Your task to perform on an android device: What's the weather going to be tomorrow? Image 0: 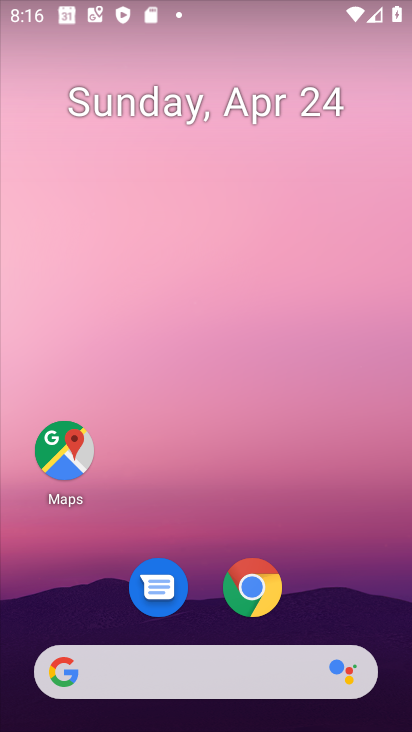
Step 0: drag from (360, 568) to (370, 161)
Your task to perform on an android device: What's the weather going to be tomorrow? Image 1: 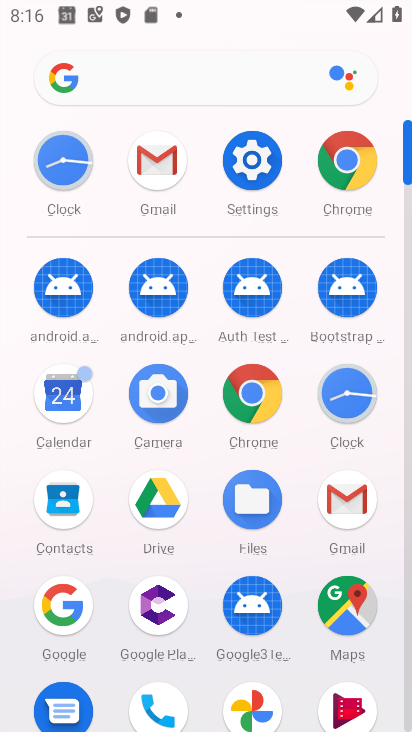
Step 1: click (251, 401)
Your task to perform on an android device: What's the weather going to be tomorrow? Image 2: 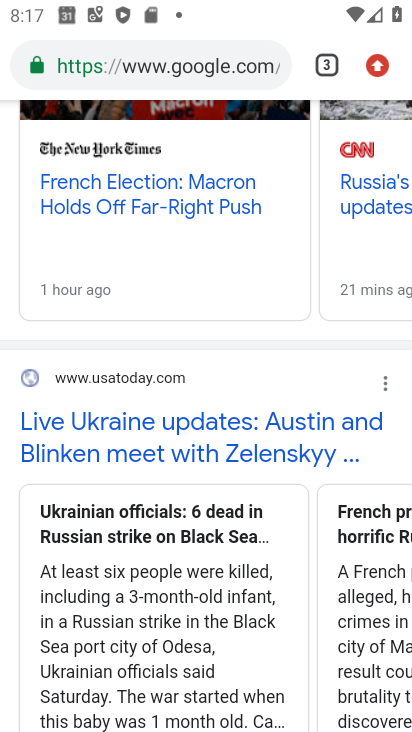
Step 2: click (162, 65)
Your task to perform on an android device: What's the weather going to be tomorrow? Image 3: 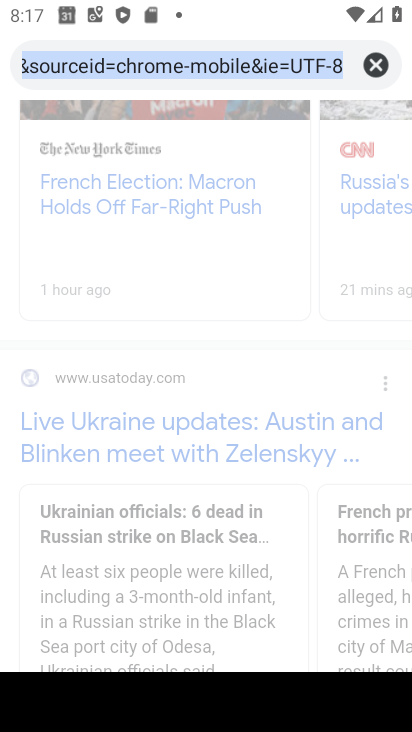
Step 3: click (381, 67)
Your task to perform on an android device: What's the weather going to be tomorrow? Image 4: 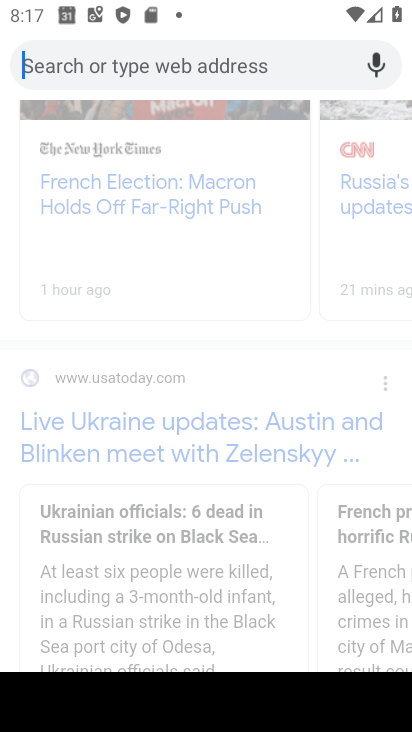
Step 4: type "what's the weather going to be tomorrow"
Your task to perform on an android device: What's the weather going to be tomorrow? Image 5: 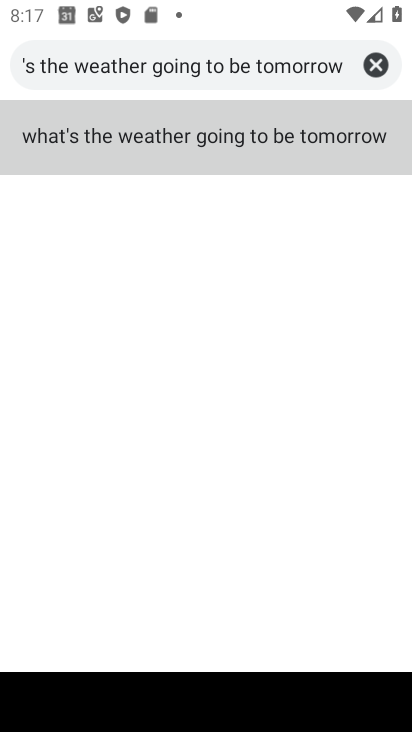
Step 5: click (157, 142)
Your task to perform on an android device: What's the weather going to be tomorrow? Image 6: 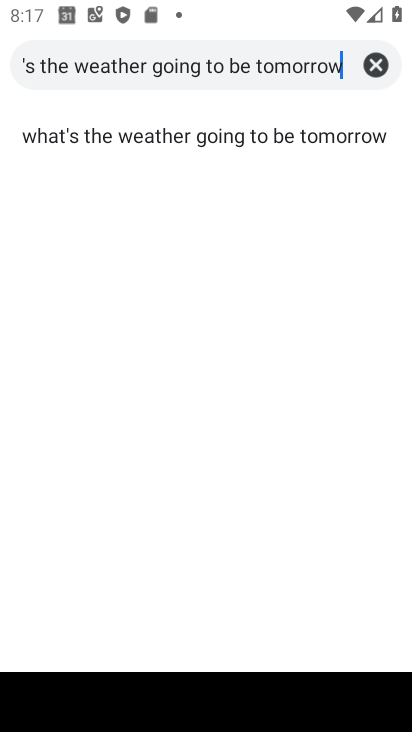
Step 6: click (153, 141)
Your task to perform on an android device: What's the weather going to be tomorrow? Image 7: 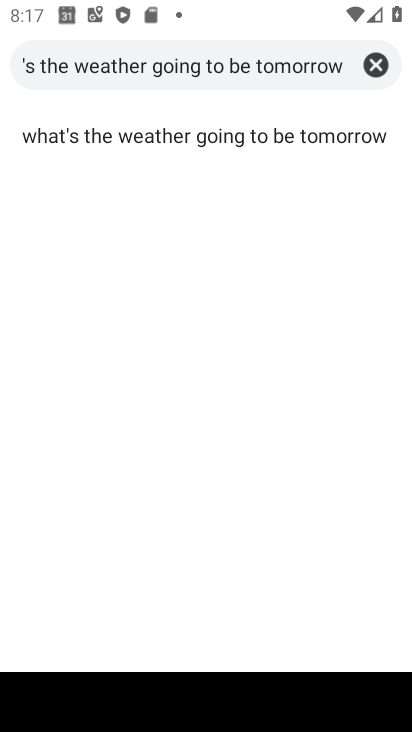
Step 7: click (140, 133)
Your task to perform on an android device: What's the weather going to be tomorrow? Image 8: 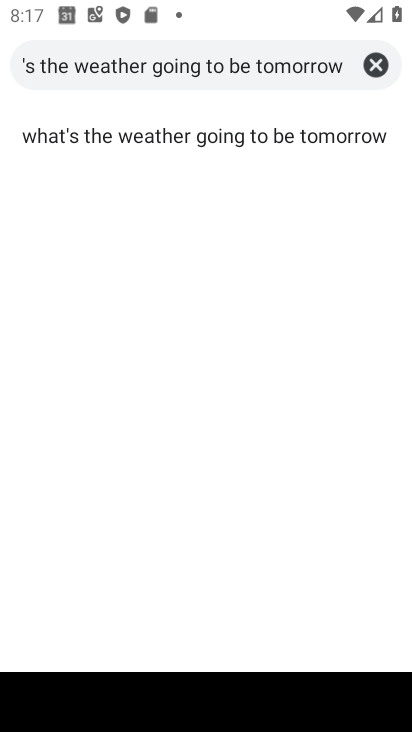
Step 8: click (142, 135)
Your task to perform on an android device: What's the weather going to be tomorrow? Image 9: 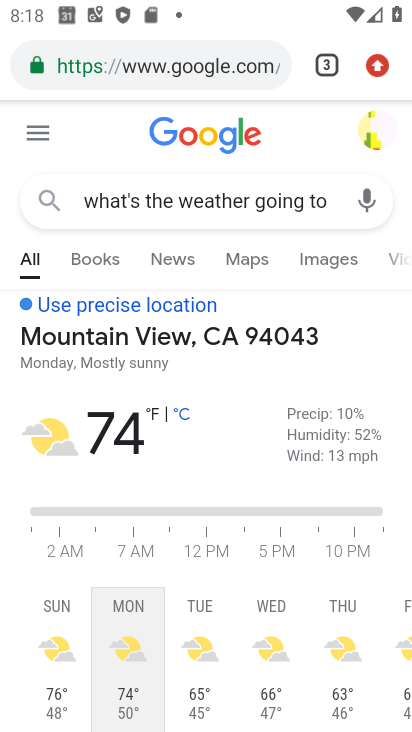
Step 9: task complete